Your task to perform on an android device: change notification settings in the gmail app Image 0: 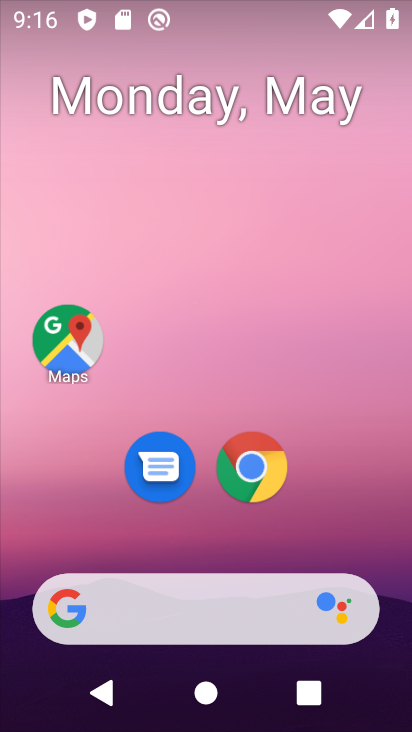
Step 0: drag from (64, 525) to (171, 72)
Your task to perform on an android device: change notification settings in the gmail app Image 1: 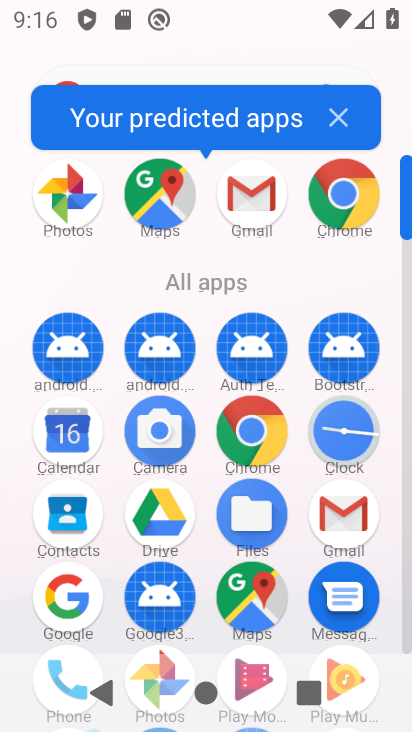
Step 1: click (339, 525)
Your task to perform on an android device: change notification settings in the gmail app Image 2: 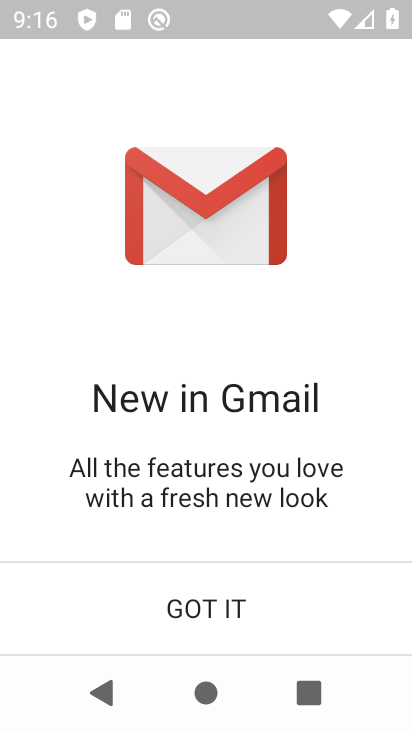
Step 2: click (221, 606)
Your task to perform on an android device: change notification settings in the gmail app Image 3: 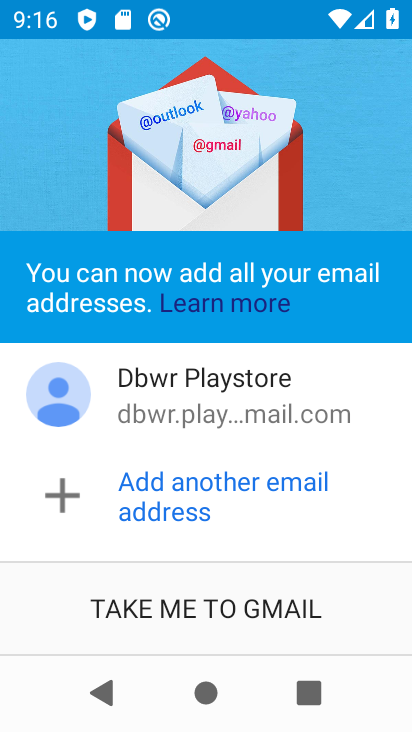
Step 3: click (227, 602)
Your task to perform on an android device: change notification settings in the gmail app Image 4: 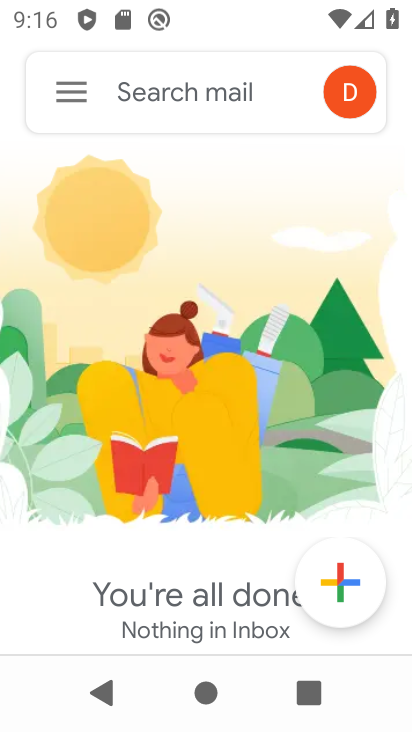
Step 4: click (74, 110)
Your task to perform on an android device: change notification settings in the gmail app Image 5: 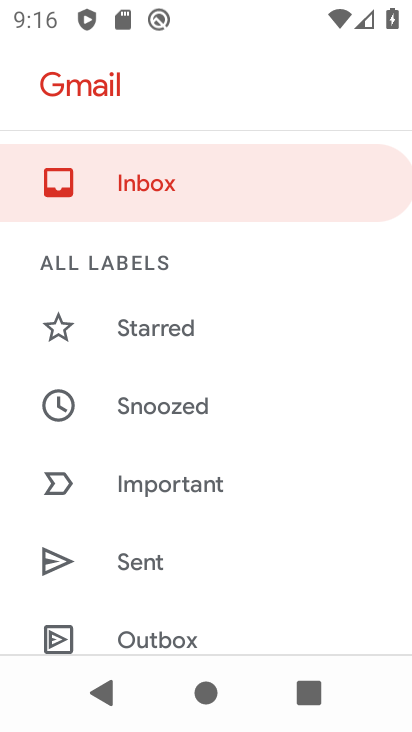
Step 5: drag from (171, 595) to (316, 89)
Your task to perform on an android device: change notification settings in the gmail app Image 6: 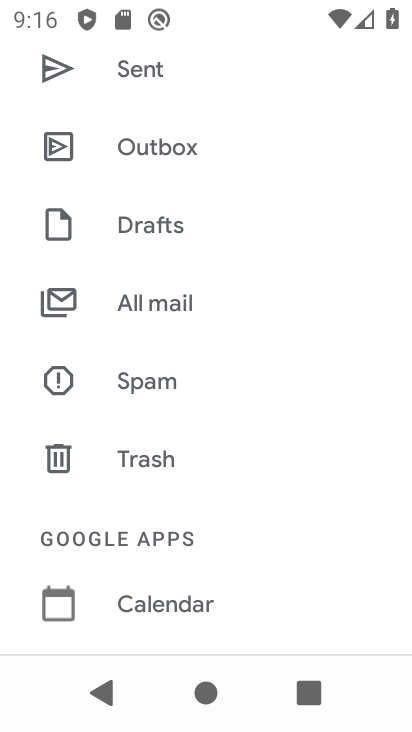
Step 6: drag from (217, 590) to (362, 48)
Your task to perform on an android device: change notification settings in the gmail app Image 7: 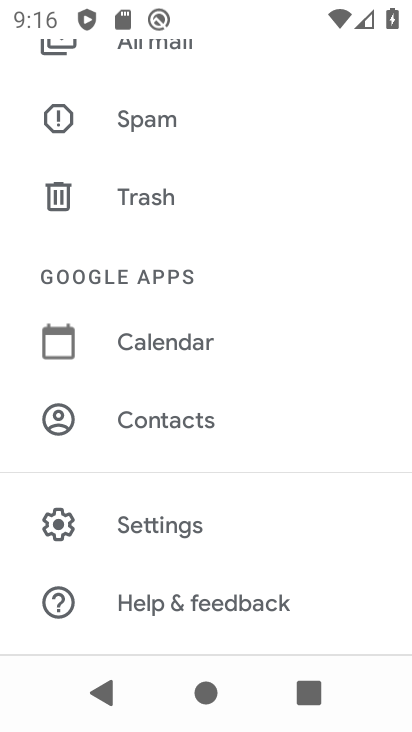
Step 7: click (211, 534)
Your task to perform on an android device: change notification settings in the gmail app Image 8: 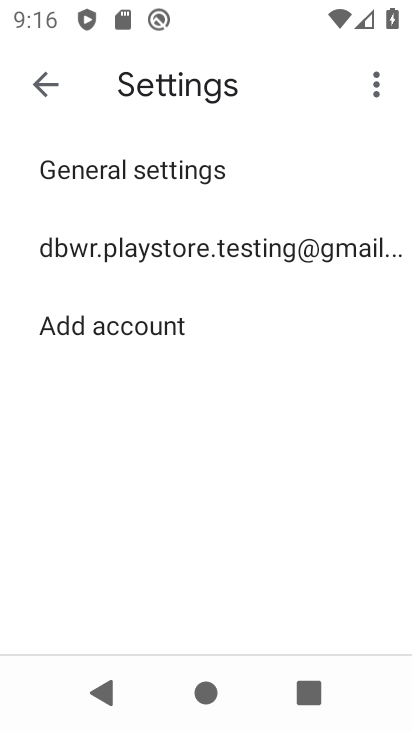
Step 8: click (230, 255)
Your task to perform on an android device: change notification settings in the gmail app Image 9: 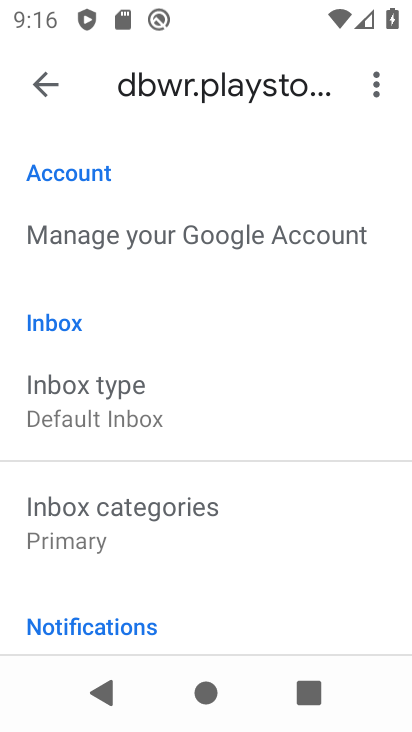
Step 9: drag from (176, 586) to (269, 241)
Your task to perform on an android device: change notification settings in the gmail app Image 10: 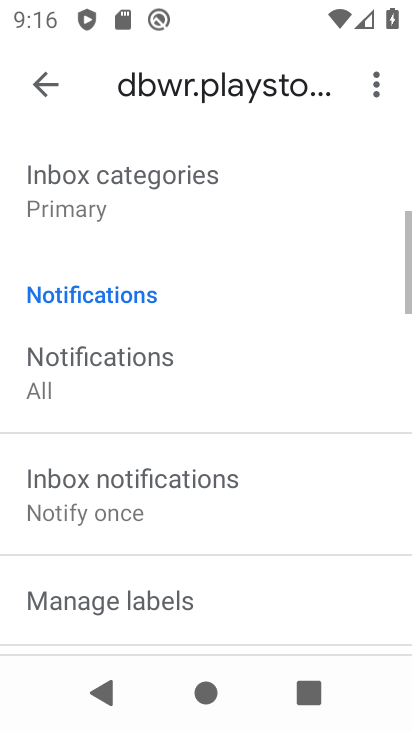
Step 10: drag from (195, 576) to (271, 285)
Your task to perform on an android device: change notification settings in the gmail app Image 11: 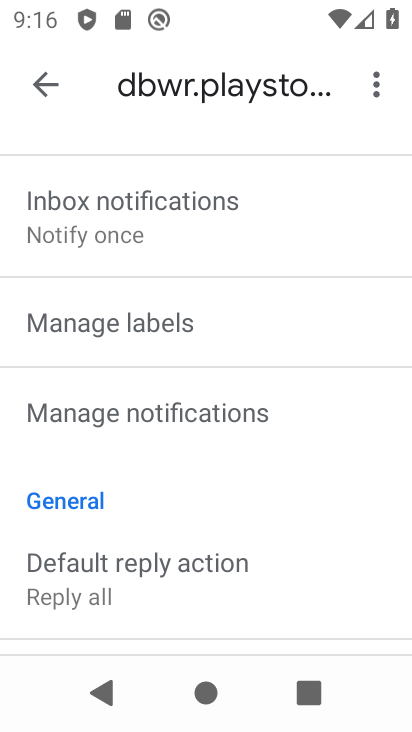
Step 11: click (283, 417)
Your task to perform on an android device: change notification settings in the gmail app Image 12: 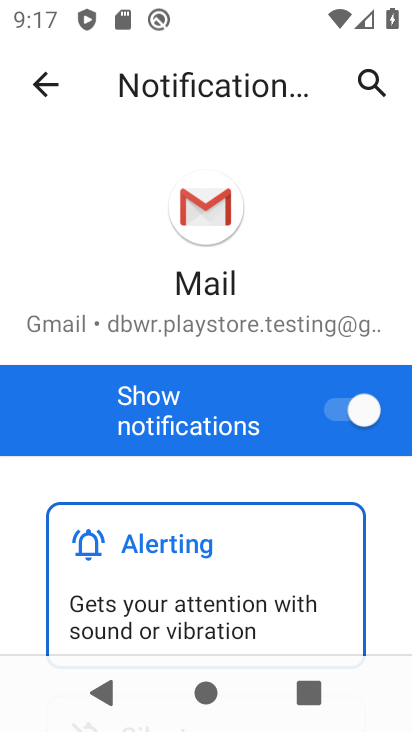
Step 12: drag from (215, 568) to (319, 289)
Your task to perform on an android device: change notification settings in the gmail app Image 13: 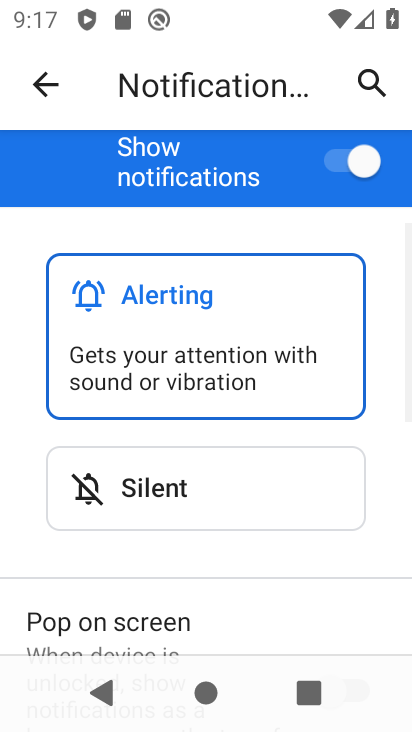
Step 13: click (271, 494)
Your task to perform on an android device: change notification settings in the gmail app Image 14: 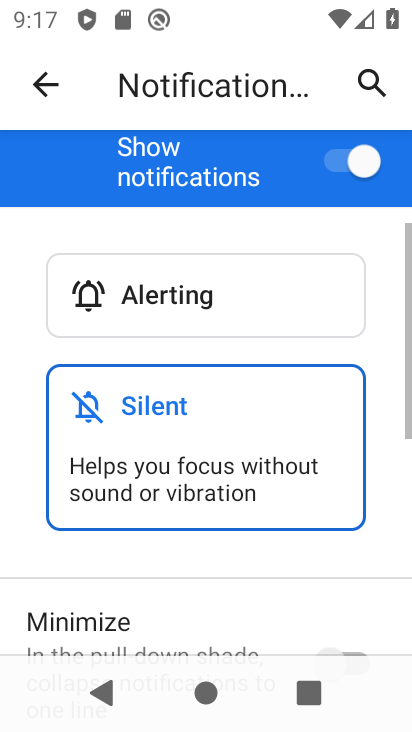
Step 14: drag from (145, 574) to (270, 259)
Your task to perform on an android device: change notification settings in the gmail app Image 15: 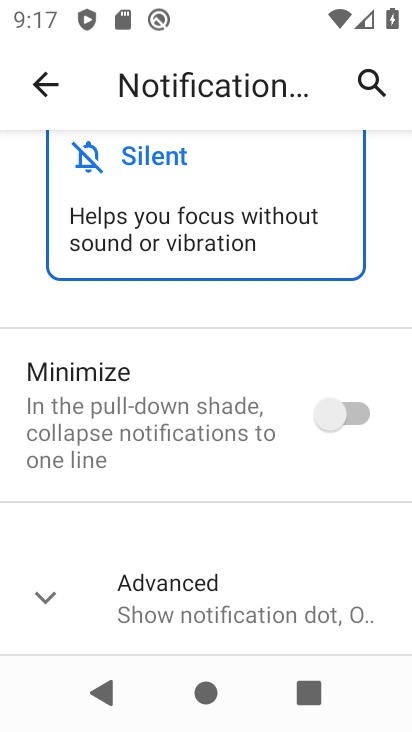
Step 15: click (363, 404)
Your task to perform on an android device: change notification settings in the gmail app Image 16: 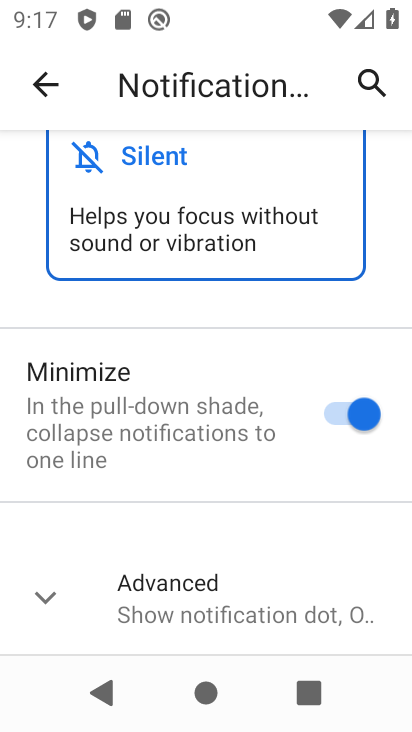
Step 16: click (152, 616)
Your task to perform on an android device: change notification settings in the gmail app Image 17: 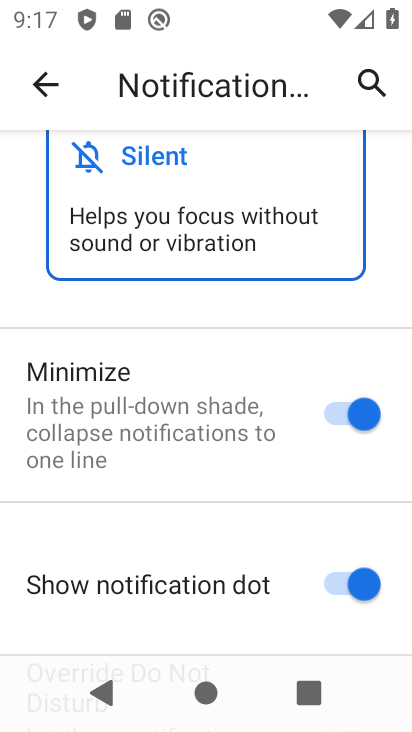
Step 17: drag from (153, 603) to (185, 283)
Your task to perform on an android device: change notification settings in the gmail app Image 18: 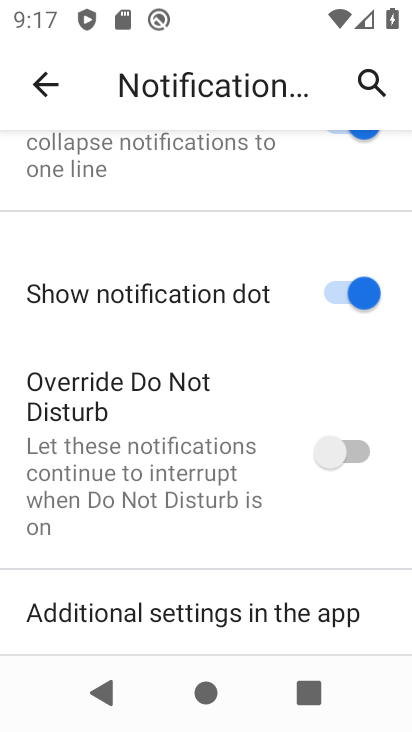
Step 18: click (355, 457)
Your task to perform on an android device: change notification settings in the gmail app Image 19: 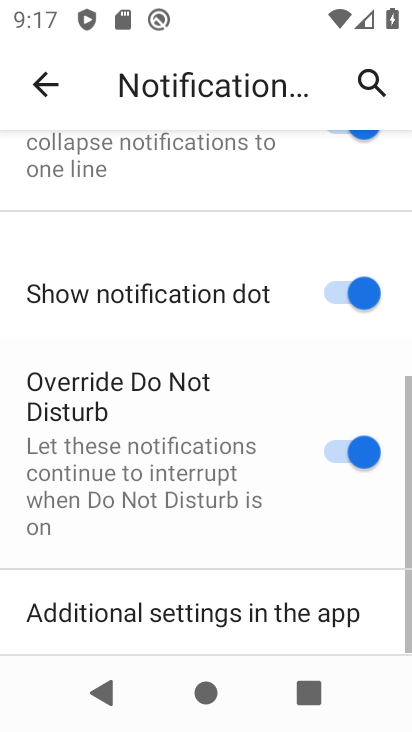
Step 19: task complete